Your task to perform on an android device: Open the web browser Image 0: 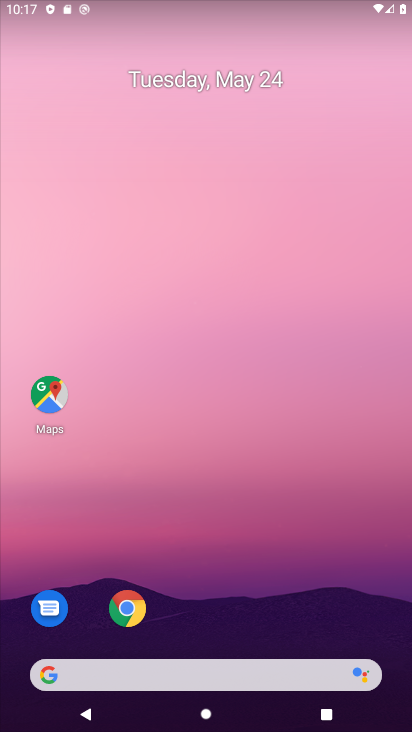
Step 0: click (125, 607)
Your task to perform on an android device: Open the web browser Image 1: 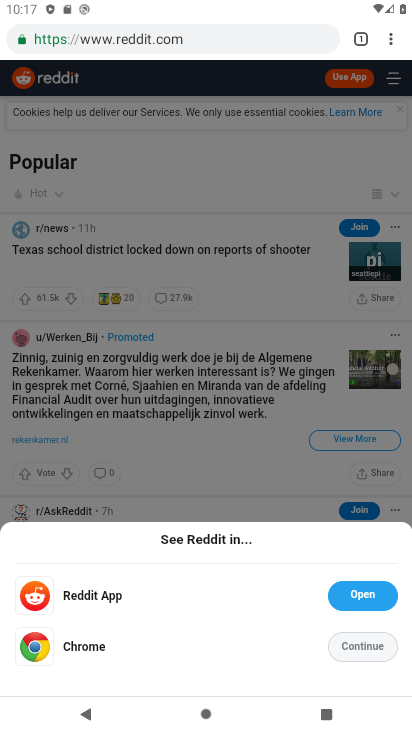
Step 1: task complete